Your task to perform on an android device: turn on improve location accuracy Image 0: 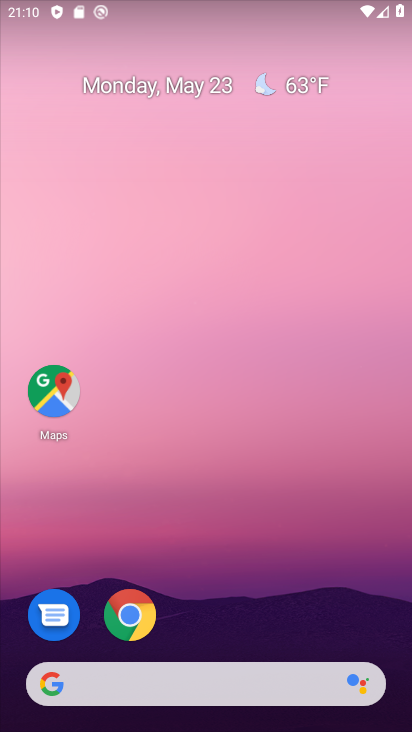
Step 0: drag from (230, 623) to (217, 106)
Your task to perform on an android device: turn on improve location accuracy Image 1: 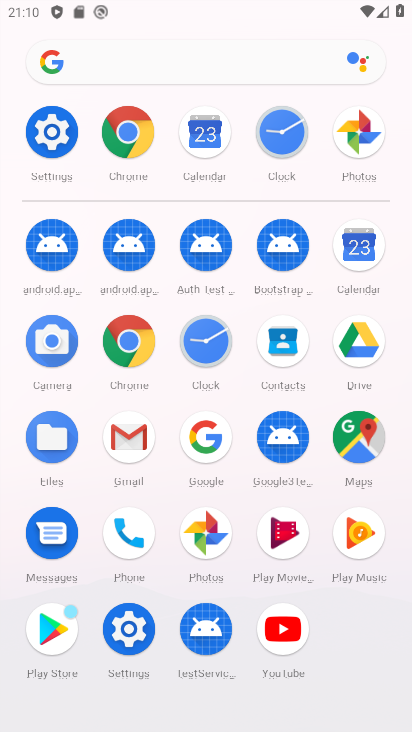
Step 1: click (47, 141)
Your task to perform on an android device: turn on improve location accuracy Image 2: 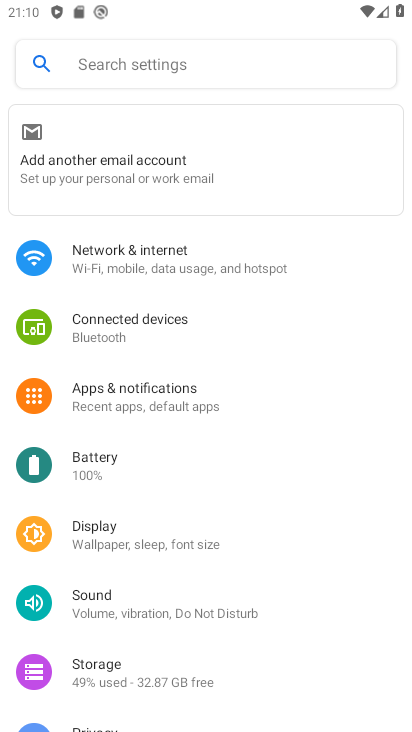
Step 2: drag from (231, 594) to (261, 287)
Your task to perform on an android device: turn on improve location accuracy Image 3: 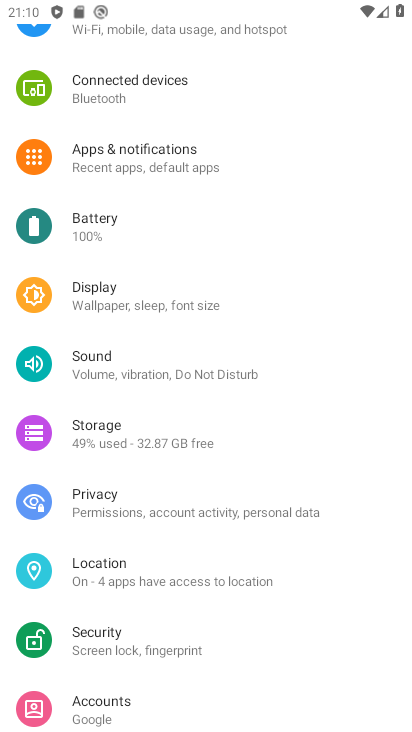
Step 3: click (133, 569)
Your task to perform on an android device: turn on improve location accuracy Image 4: 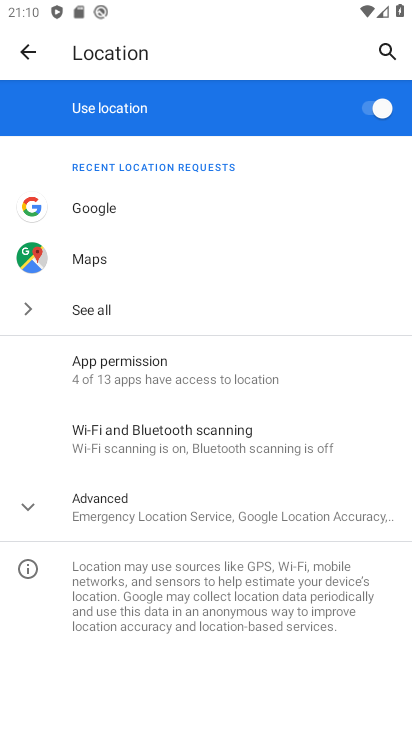
Step 4: click (98, 514)
Your task to perform on an android device: turn on improve location accuracy Image 5: 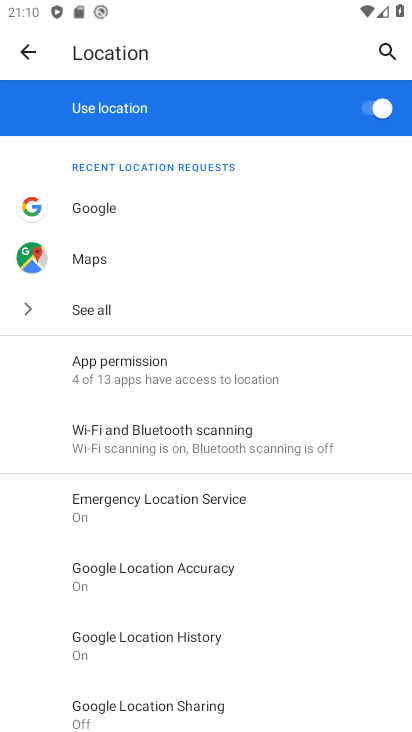
Step 5: click (138, 577)
Your task to perform on an android device: turn on improve location accuracy Image 6: 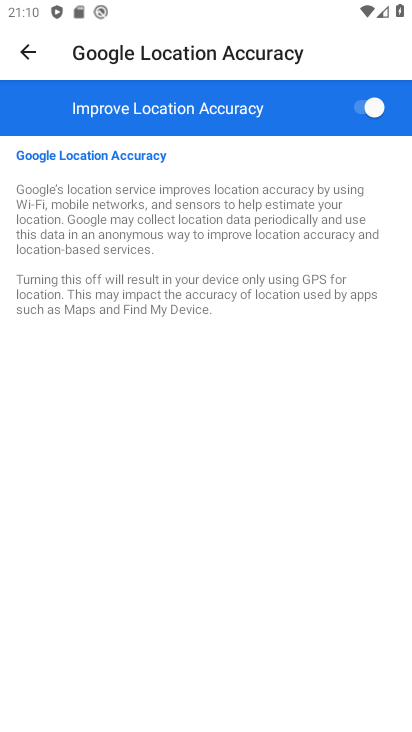
Step 6: task complete